Your task to perform on an android device: clear all cookies in the chrome app Image 0: 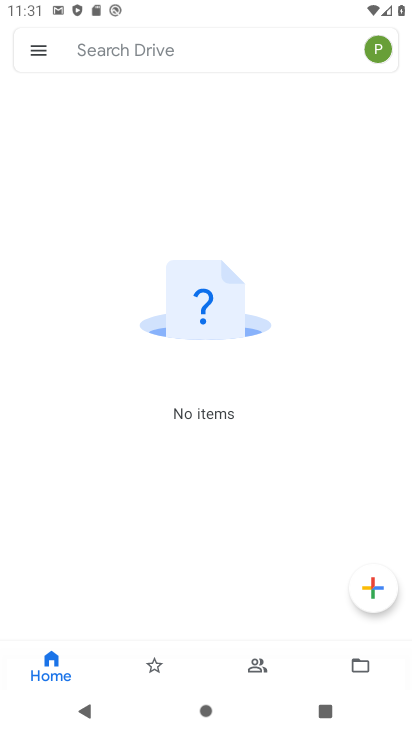
Step 0: press home button
Your task to perform on an android device: clear all cookies in the chrome app Image 1: 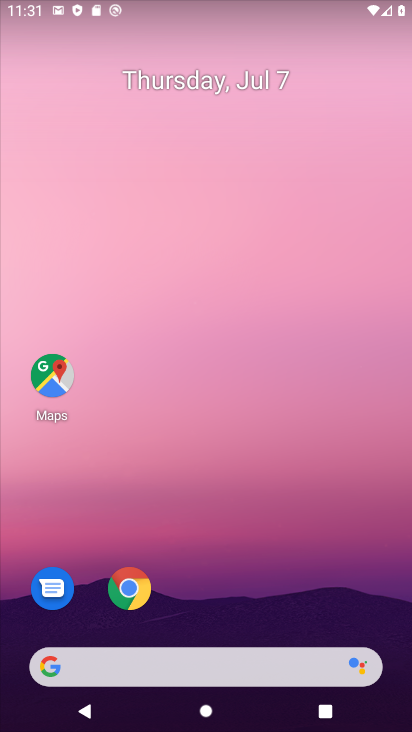
Step 1: click (136, 593)
Your task to perform on an android device: clear all cookies in the chrome app Image 2: 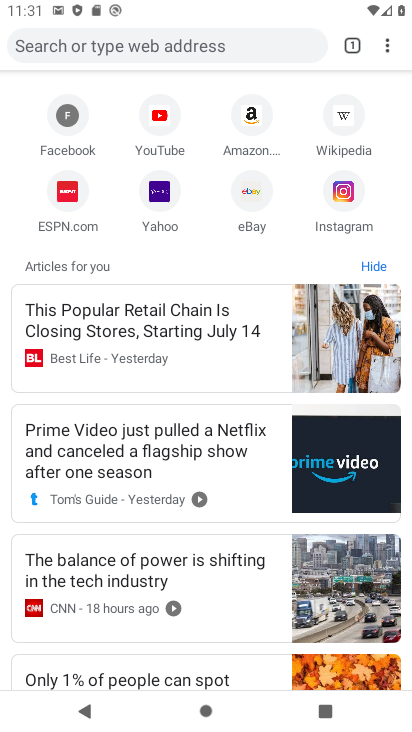
Step 2: click (381, 48)
Your task to perform on an android device: clear all cookies in the chrome app Image 3: 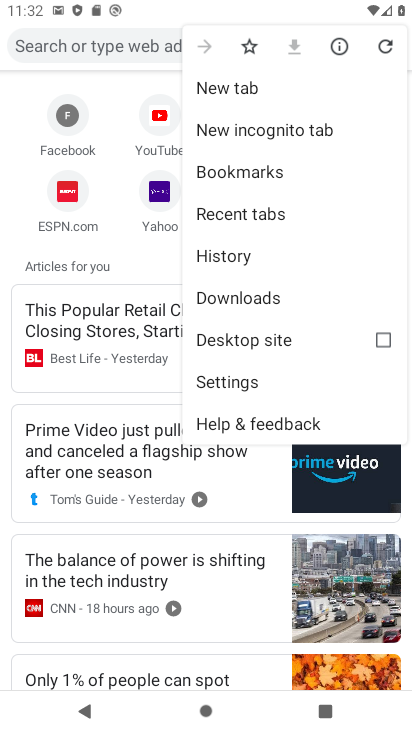
Step 3: click (248, 251)
Your task to perform on an android device: clear all cookies in the chrome app Image 4: 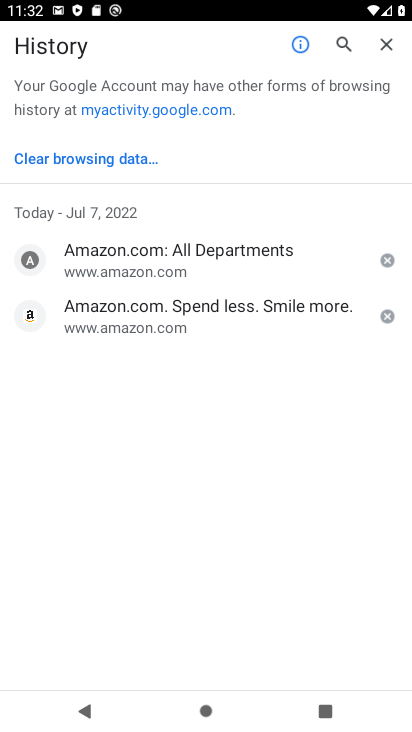
Step 4: click (98, 162)
Your task to perform on an android device: clear all cookies in the chrome app Image 5: 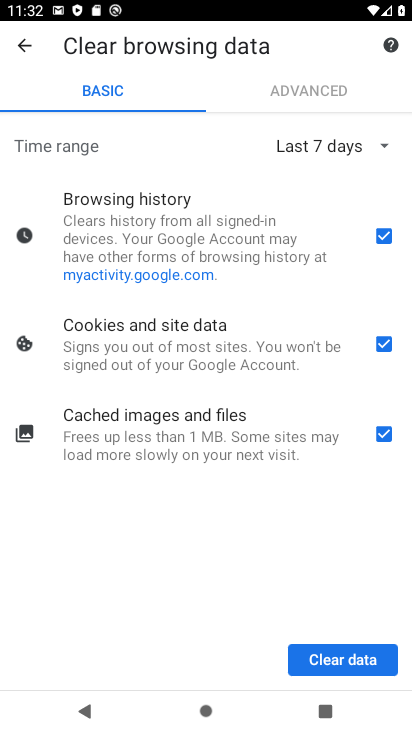
Step 5: click (385, 432)
Your task to perform on an android device: clear all cookies in the chrome app Image 6: 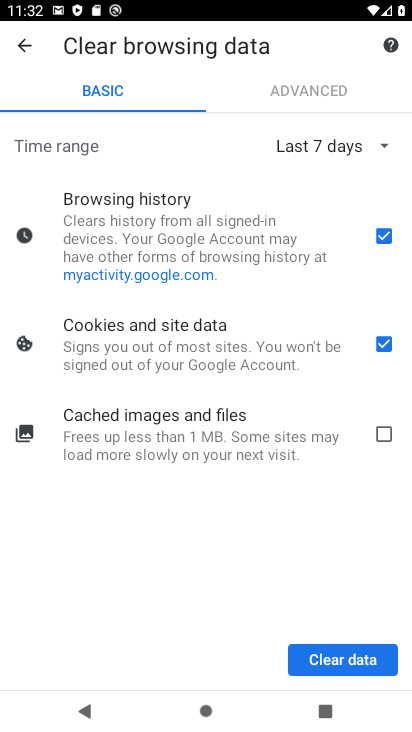
Step 6: click (386, 230)
Your task to perform on an android device: clear all cookies in the chrome app Image 7: 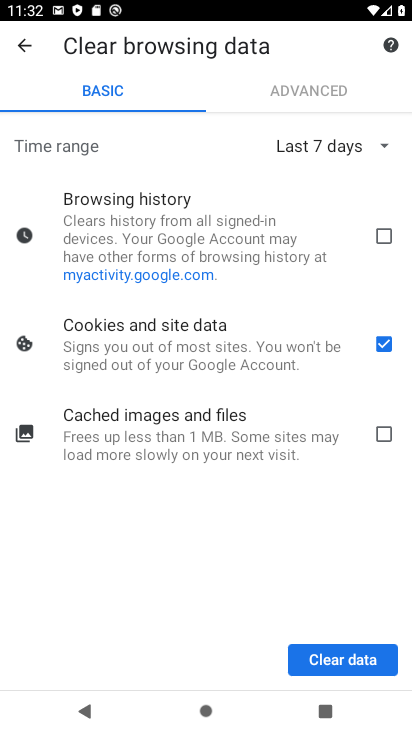
Step 7: click (317, 659)
Your task to perform on an android device: clear all cookies in the chrome app Image 8: 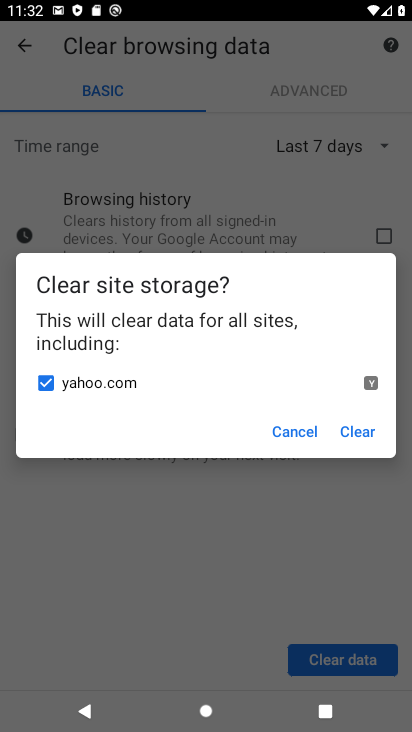
Step 8: click (368, 437)
Your task to perform on an android device: clear all cookies in the chrome app Image 9: 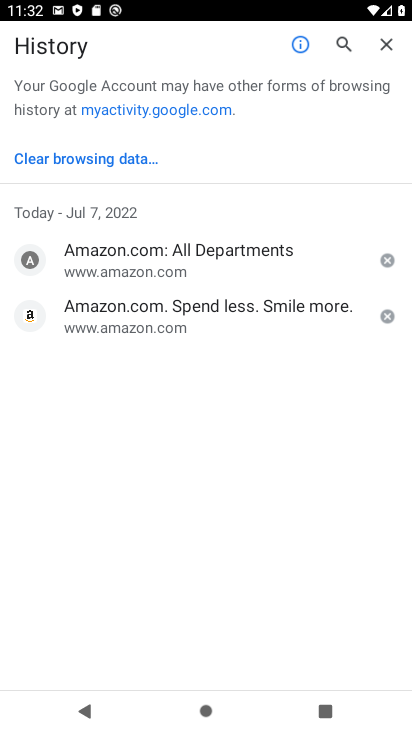
Step 9: task complete